Your task to perform on an android device: What's on my calendar today? Image 0: 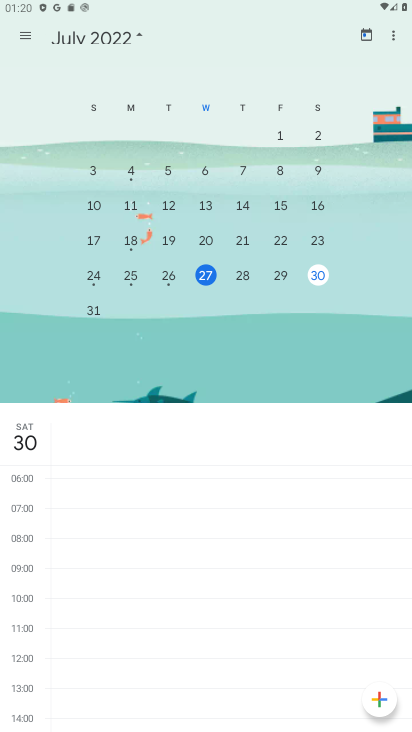
Step 0: press home button
Your task to perform on an android device: What's on my calendar today? Image 1: 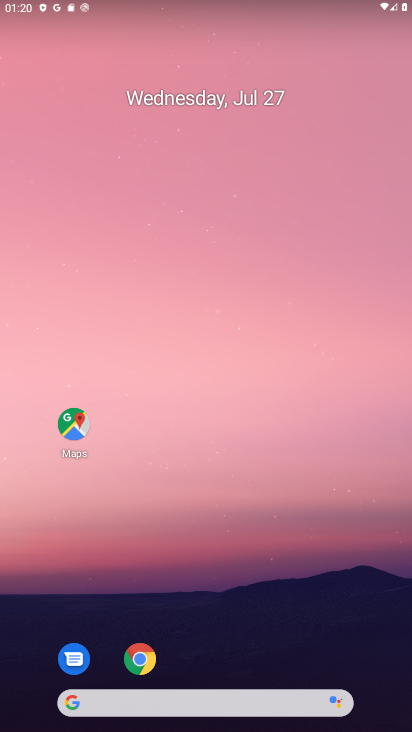
Step 1: drag from (351, 533) to (248, 1)
Your task to perform on an android device: What's on my calendar today? Image 2: 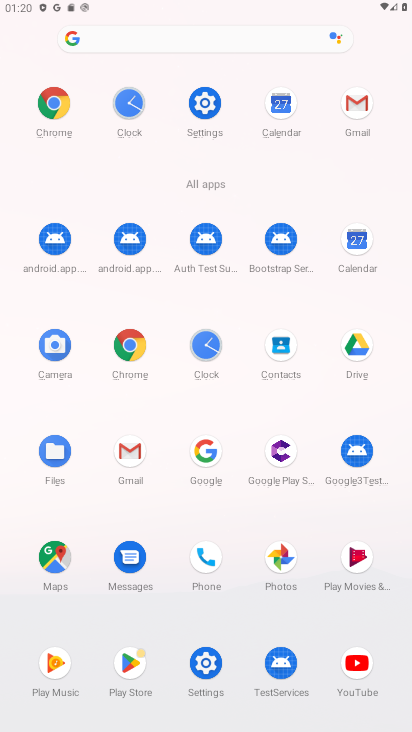
Step 2: click (281, 116)
Your task to perform on an android device: What's on my calendar today? Image 3: 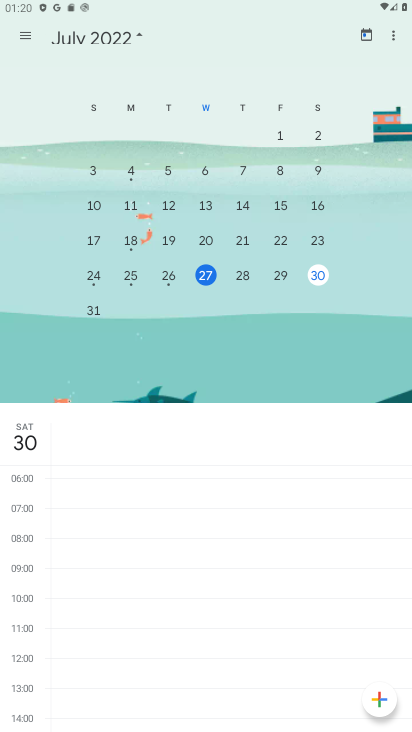
Step 3: click (204, 279)
Your task to perform on an android device: What's on my calendar today? Image 4: 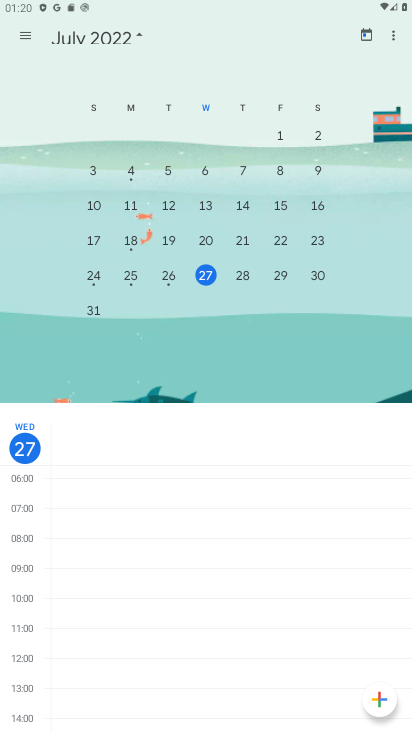
Step 4: task complete